Your task to perform on an android device: turn on showing notifications on the lock screen Image 0: 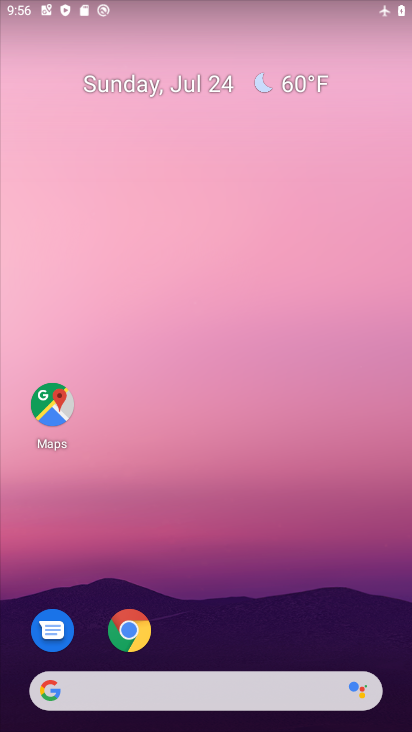
Step 0: drag from (238, 636) to (223, 89)
Your task to perform on an android device: turn on showing notifications on the lock screen Image 1: 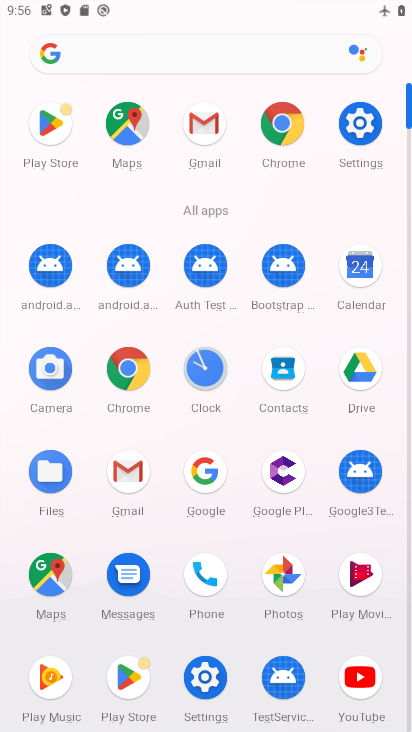
Step 1: click (206, 687)
Your task to perform on an android device: turn on showing notifications on the lock screen Image 2: 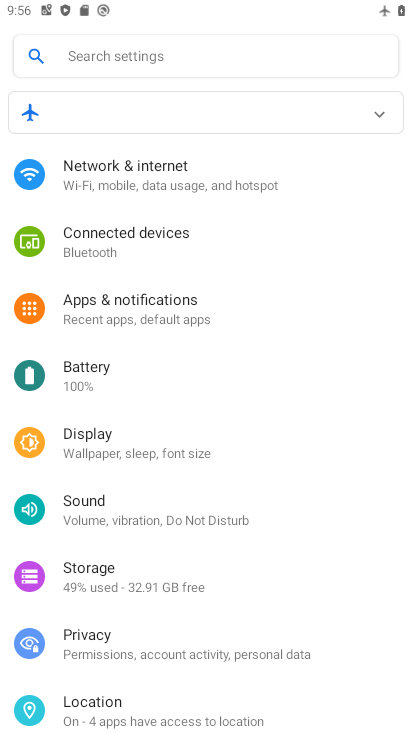
Step 2: click (155, 305)
Your task to perform on an android device: turn on showing notifications on the lock screen Image 3: 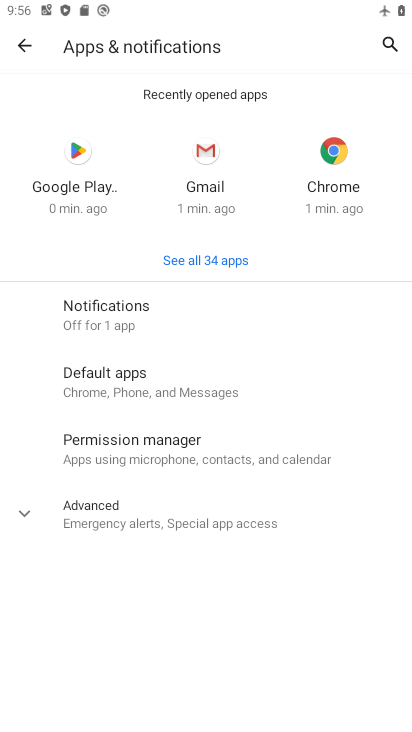
Step 3: click (128, 328)
Your task to perform on an android device: turn on showing notifications on the lock screen Image 4: 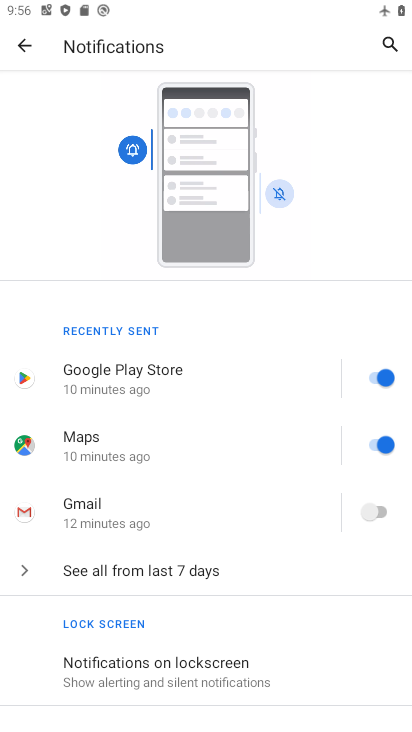
Step 4: click (130, 674)
Your task to perform on an android device: turn on showing notifications on the lock screen Image 5: 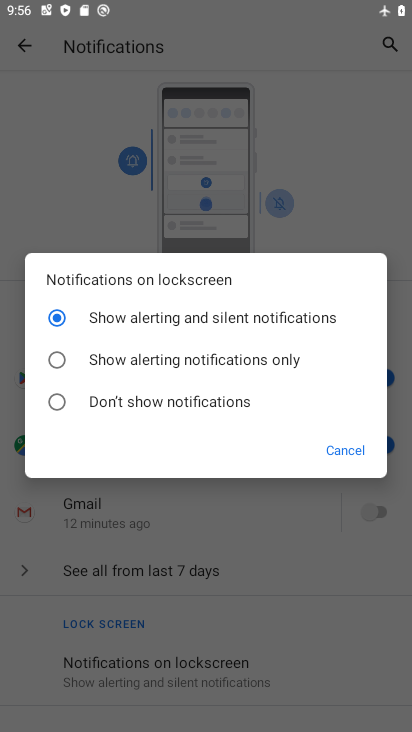
Step 5: task complete